Your task to perform on an android device: Find coffee shops on Maps Image 0: 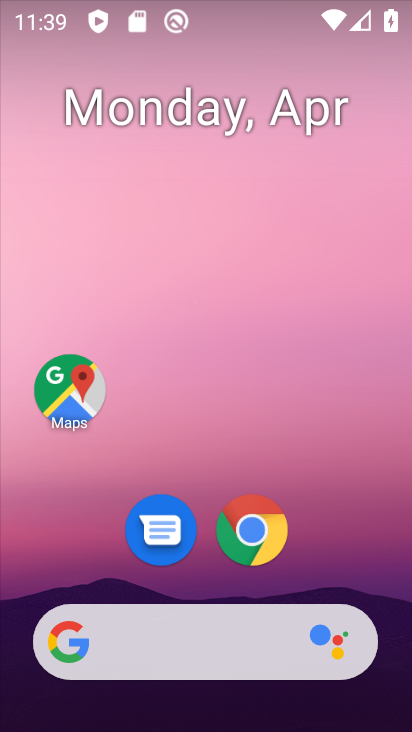
Step 0: click (56, 380)
Your task to perform on an android device: Find coffee shops on Maps Image 1: 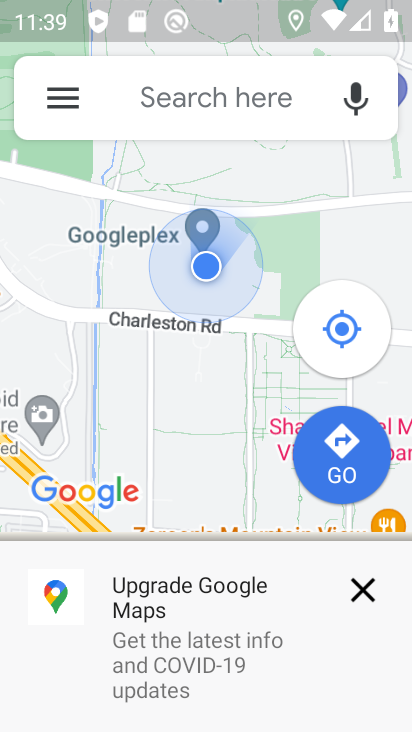
Step 1: click (185, 103)
Your task to perform on an android device: Find coffee shops on Maps Image 2: 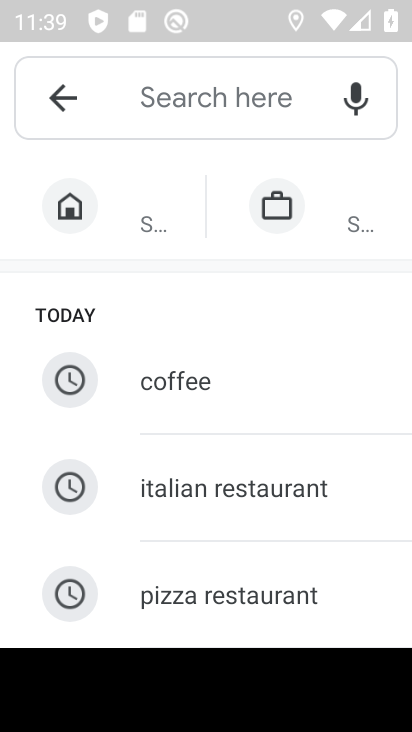
Step 2: drag from (232, 476) to (232, 229)
Your task to perform on an android device: Find coffee shops on Maps Image 3: 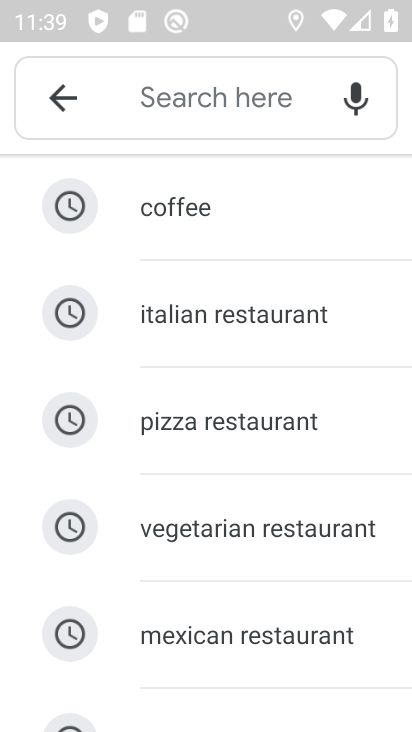
Step 3: drag from (251, 504) to (249, 287)
Your task to perform on an android device: Find coffee shops on Maps Image 4: 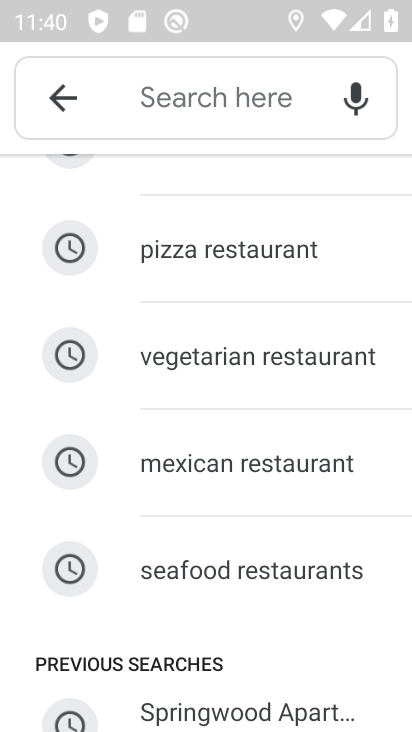
Step 4: click (174, 76)
Your task to perform on an android device: Find coffee shops on Maps Image 5: 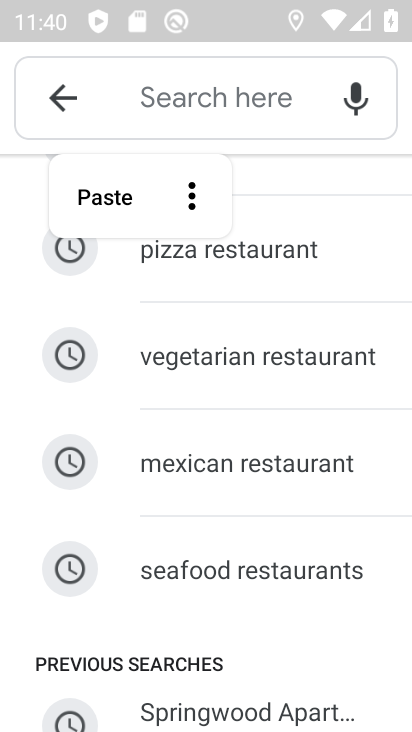
Step 5: type "coffee shops"
Your task to perform on an android device: Find coffee shops on Maps Image 6: 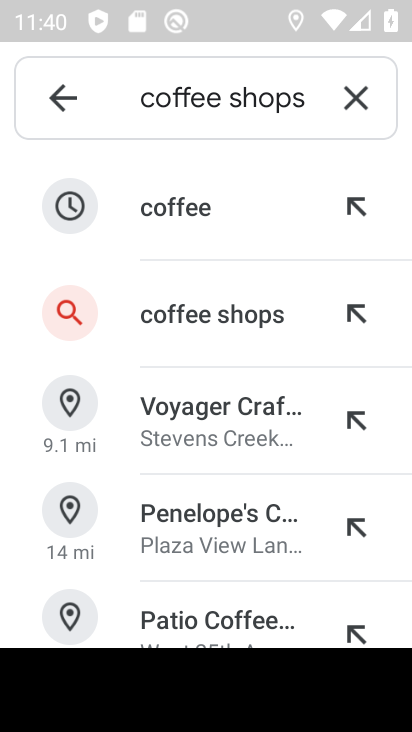
Step 6: click (194, 301)
Your task to perform on an android device: Find coffee shops on Maps Image 7: 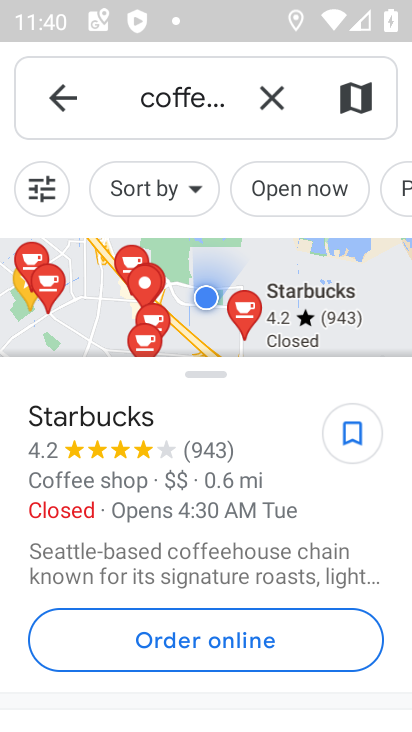
Step 7: task complete